Your task to perform on an android device: turn vacation reply on in the gmail app Image 0: 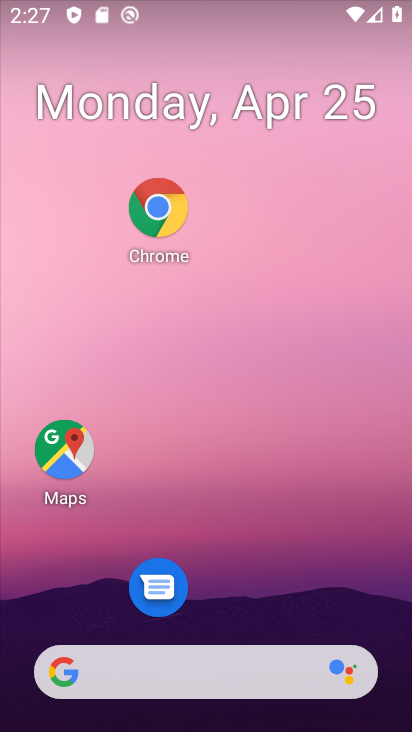
Step 0: drag from (272, 581) to (347, 198)
Your task to perform on an android device: turn vacation reply on in the gmail app Image 1: 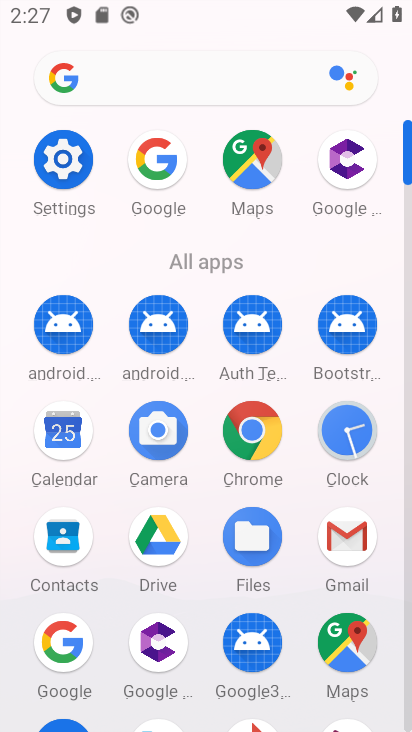
Step 1: click (338, 527)
Your task to perform on an android device: turn vacation reply on in the gmail app Image 2: 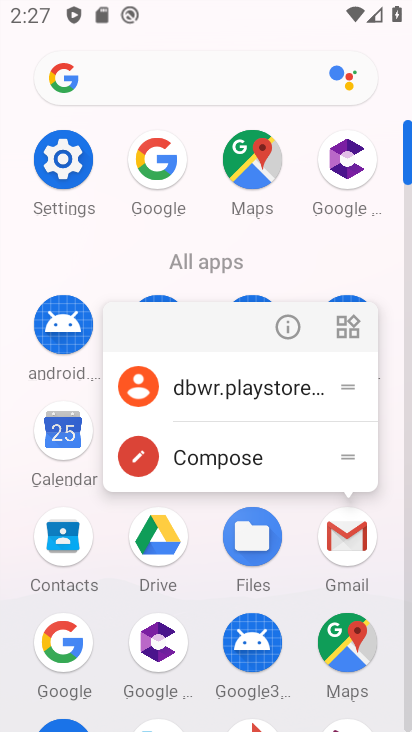
Step 2: click (338, 527)
Your task to perform on an android device: turn vacation reply on in the gmail app Image 3: 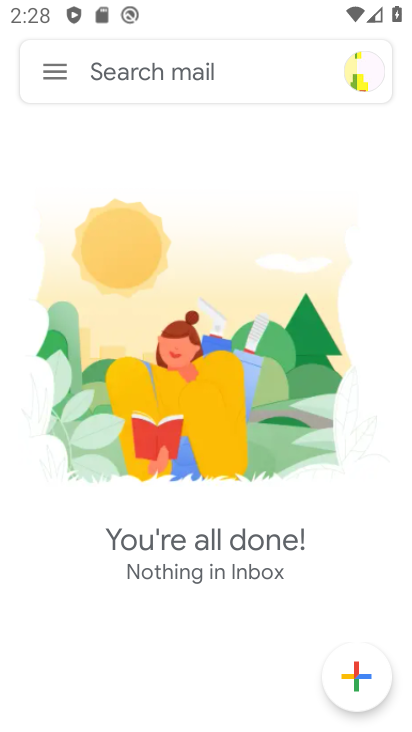
Step 3: click (4, 143)
Your task to perform on an android device: turn vacation reply on in the gmail app Image 4: 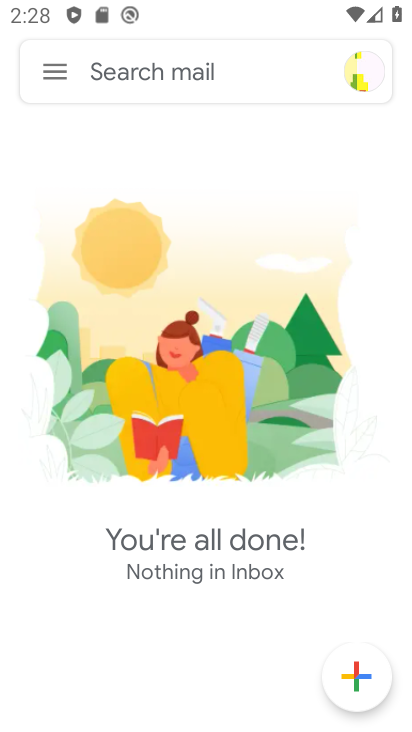
Step 4: click (52, 78)
Your task to perform on an android device: turn vacation reply on in the gmail app Image 5: 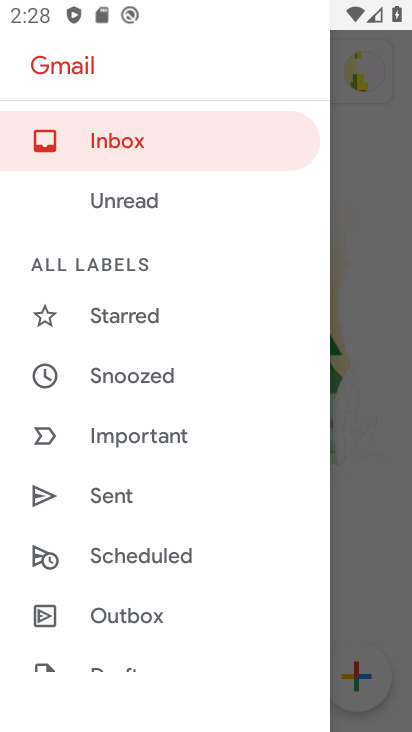
Step 5: drag from (144, 598) to (261, 328)
Your task to perform on an android device: turn vacation reply on in the gmail app Image 6: 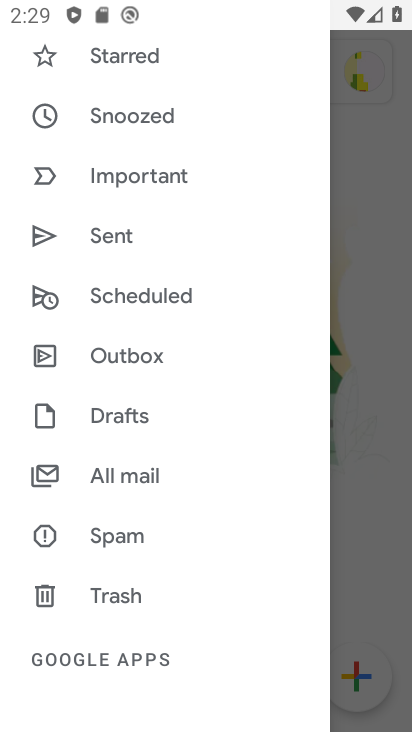
Step 6: drag from (158, 538) to (180, 214)
Your task to perform on an android device: turn vacation reply on in the gmail app Image 7: 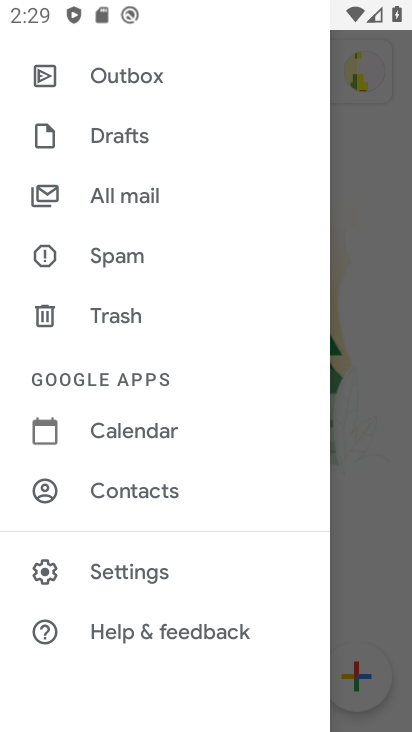
Step 7: drag from (87, 448) to (169, 280)
Your task to perform on an android device: turn vacation reply on in the gmail app Image 8: 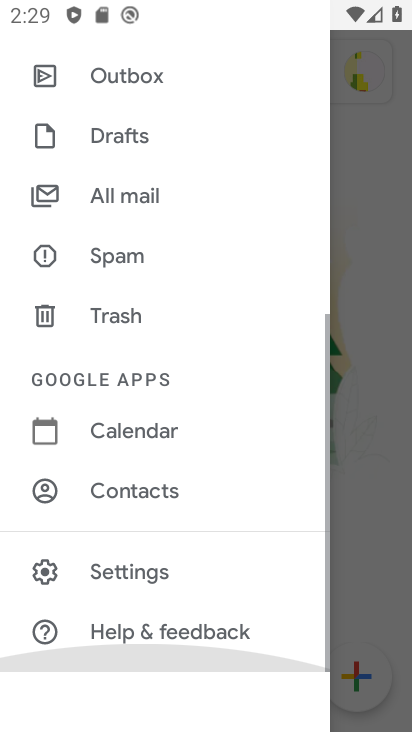
Step 8: drag from (170, 446) to (188, 234)
Your task to perform on an android device: turn vacation reply on in the gmail app Image 9: 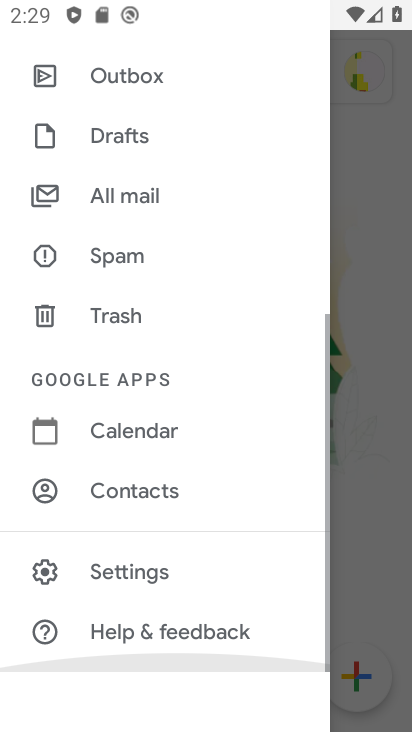
Step 9: click (164, 363)
Your task to perform on an android device: turn vacation reply on in the gmail app Image 10: 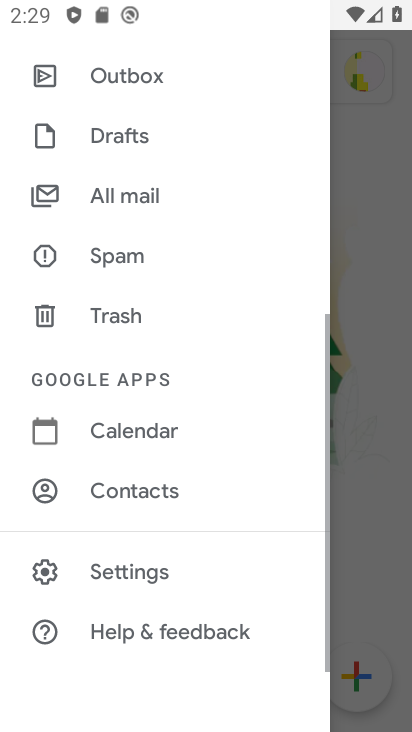
Step 10: click (119, 567)
Your task to perform on an android device: turn vacation reply on in the gmail app Image 11: 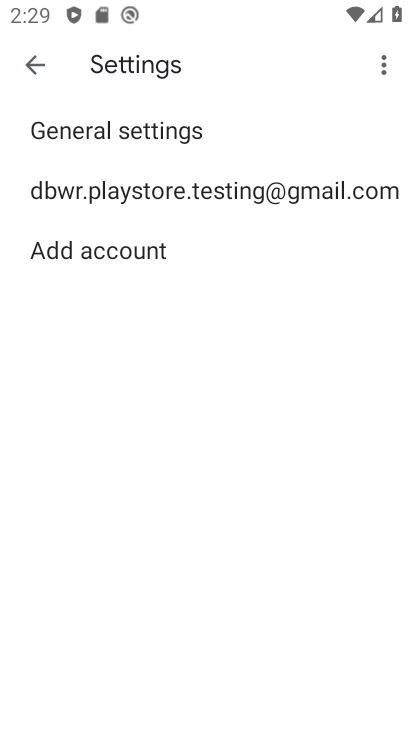
Step 11: click (241, 203)
Your task to perform on an android device: turn vacation reply on in the gmail app Image 12: 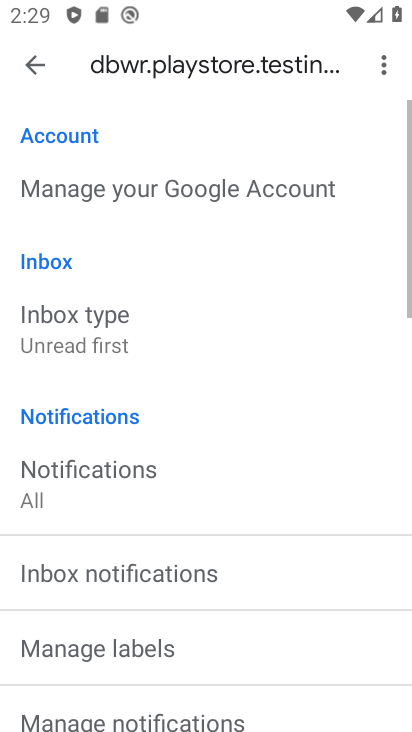
Step 12: drag from (334, 678) to (355, 229)
Your task to perform on an android device: turn vacation reply on in the gmail app Image 13: 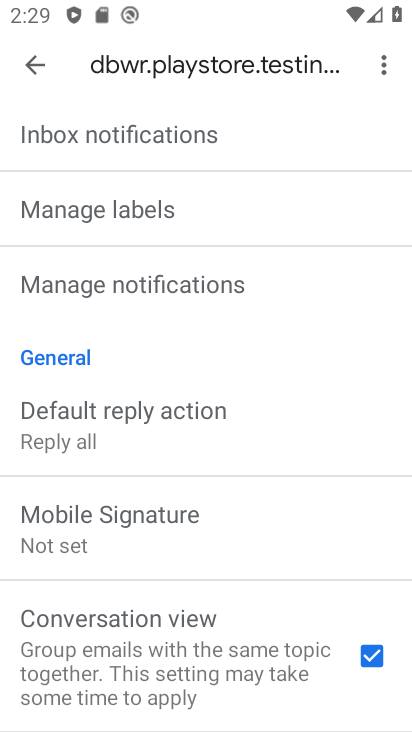
Step 13: drag from (105, 622) to (111, 148)
Your task to perform on an android device: turn vacation reply on in the gmail app Image 14: 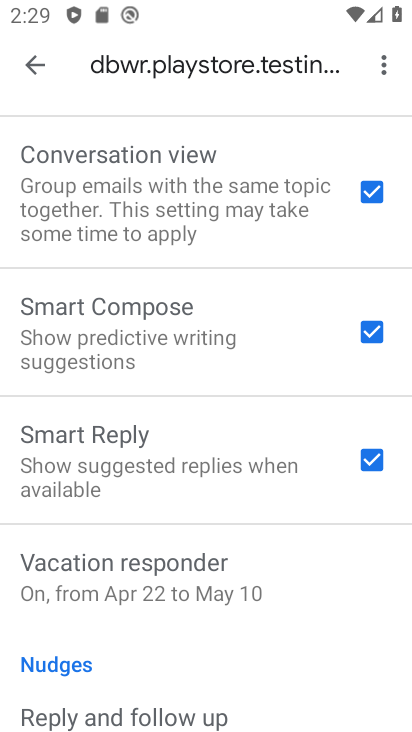
Step 14: drag from (199, 548) to (151, 537)
Your task to perform on an android device: turn vacation reply on in the gmail app Image 15: 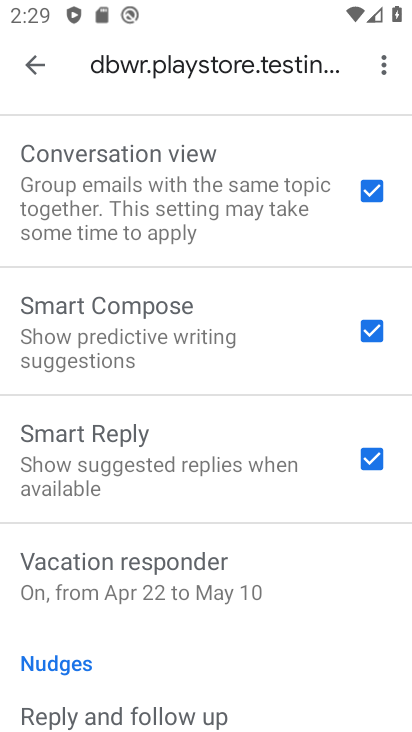
Step 15: click (245, 612)
Your task to perform on an android device: turn vacation reply on in the gmail app Image 16: 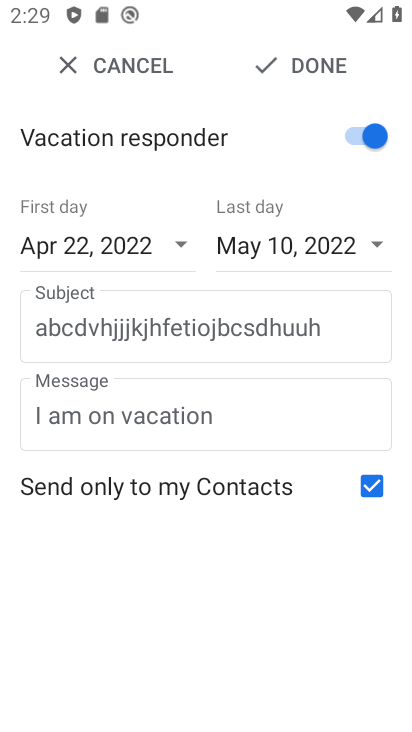
Step 16: click (186, 227)
Your task to perform on an android device: turn vacation reply on in the gmail app Image 17: 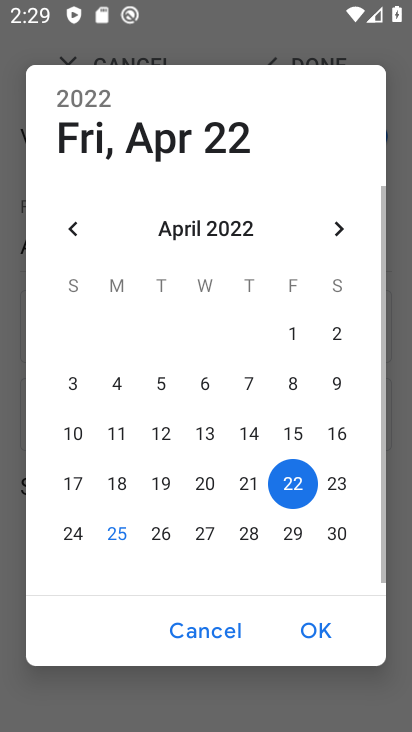
Step 17: click (181, 463)
Your task to perform on an android device: turn vacation reply on in the gmail app Image 18: 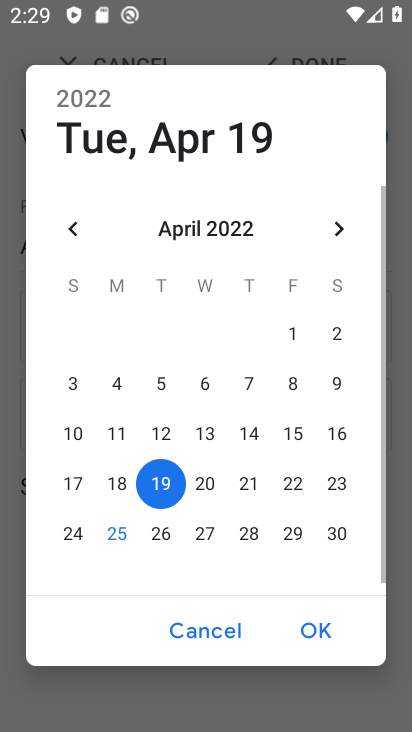
Step 18: click (122, 523)
Your task to perform on an android device: turn vacation reply on in the gmail app Image 19: 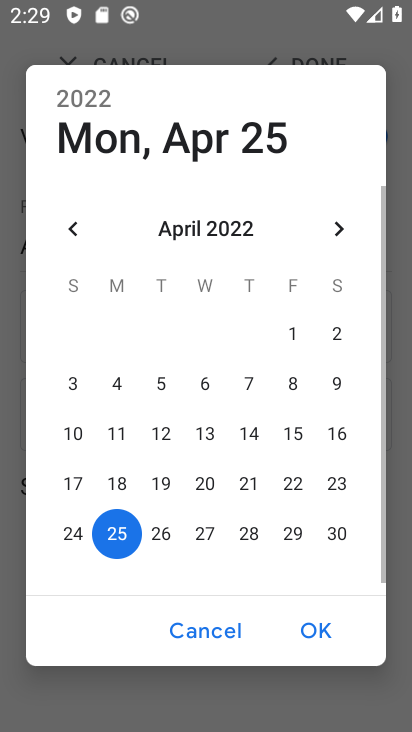
Step 19: click (120, 538)
Your task to perform on an android device: turn vacation reply on in the gmail app Image 20: 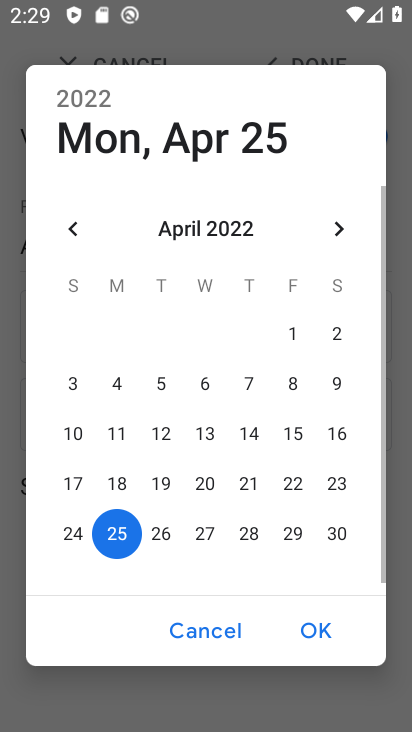
Step 20: click (319, 622)
Your task to perform on an android device: turn vacation reply on in the gmail app Image 21: 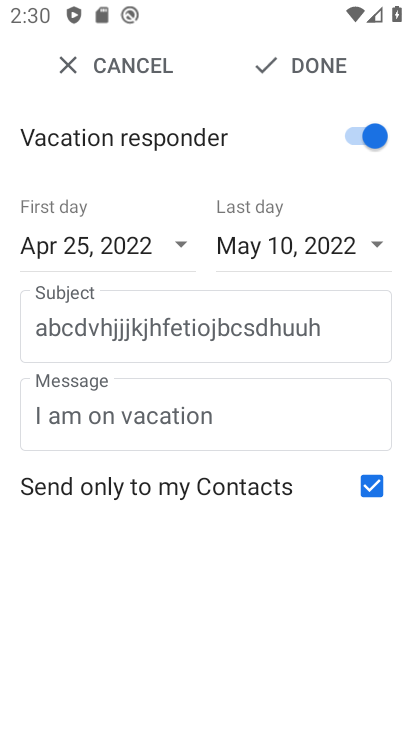
Step 21: click (311, 68)
Your task to perform on an android device: turn vacation reply on in the gmail app Image 22: 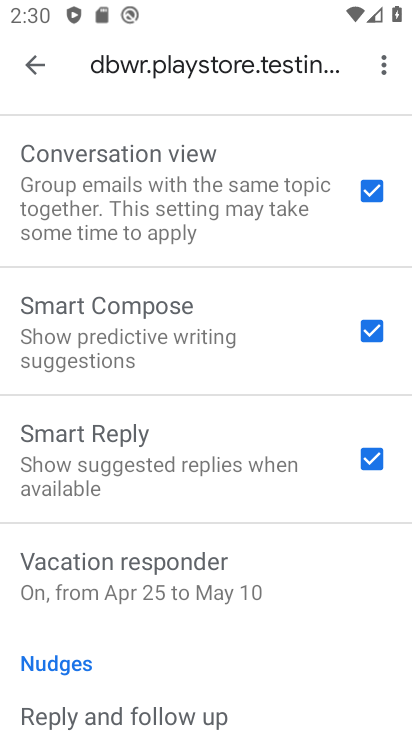
Step 22: task complete